Your task to perform on an android device: Open the Play Movies app and select the watchlist tab. Image 0: 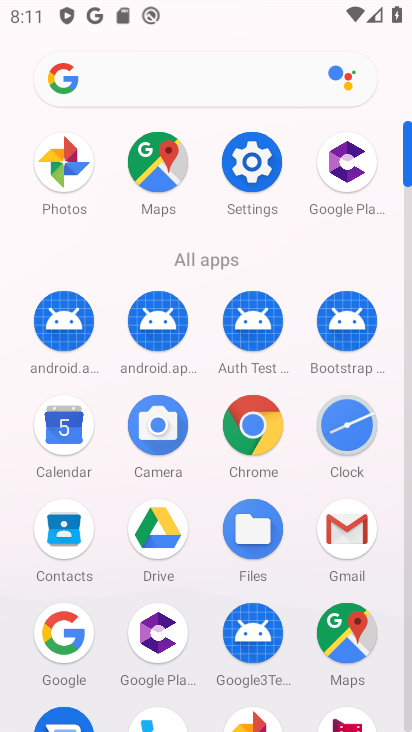
Step 0: click (335, 706)
Your task to perform on an android device: Open the Play Movies app and select the watchlist tab. Image 1: 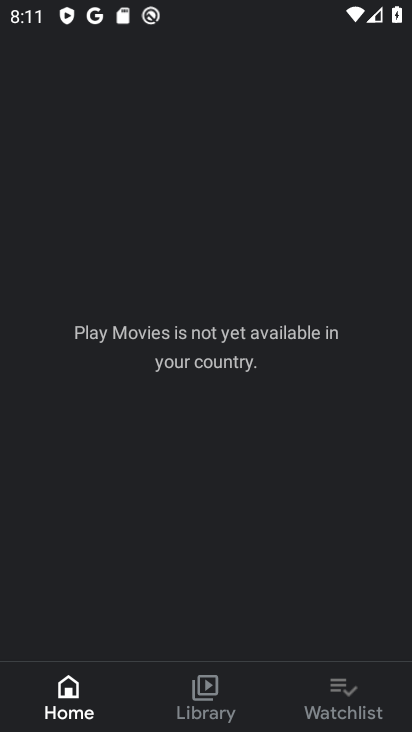
Step 1: click (345, 706)
Your task to perform on an android device: Open the Play Movies app and select the watchlist tab. Image 2: 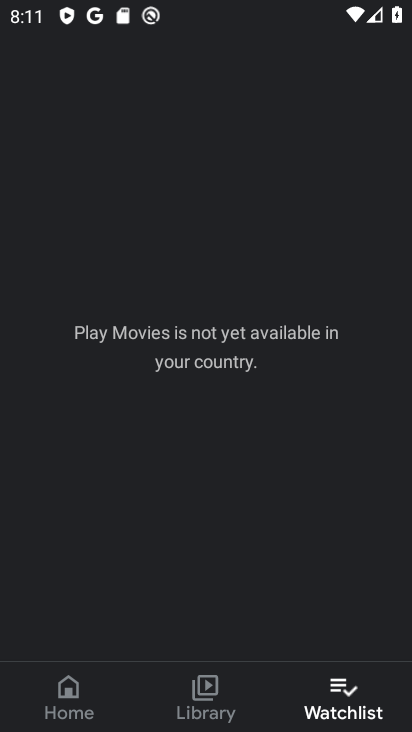
Step 2: task complete